Your task to perform on an android device: Open accessibility settings Image 0: 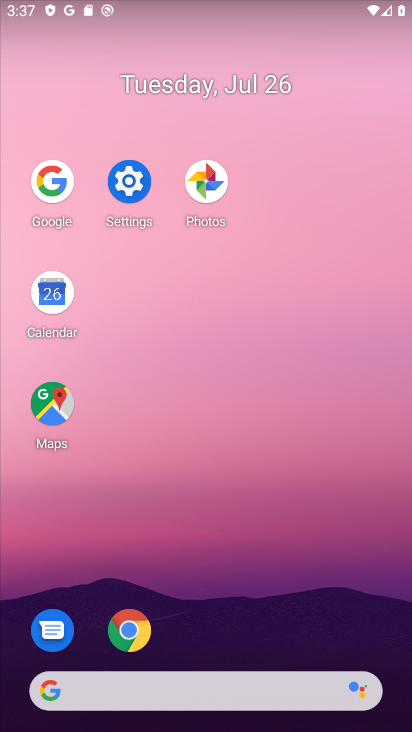
Step 0: click (134, 178)
Your task to perform on an android device: Open accessibility settings Image 1: 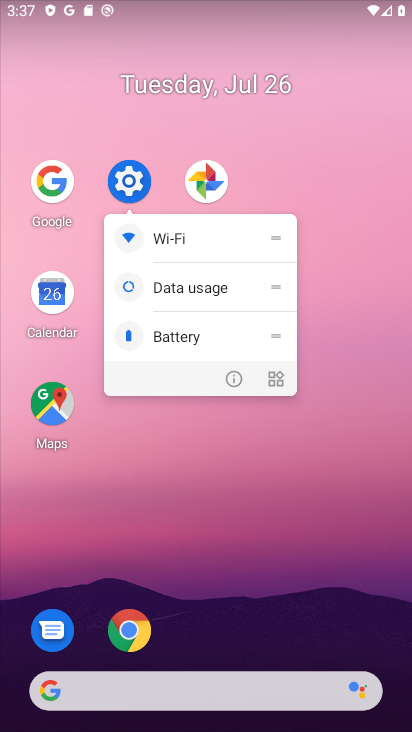
Step 1: click (134, 178)
Your task to perform on an android device: Open accessibility settings Image 2: 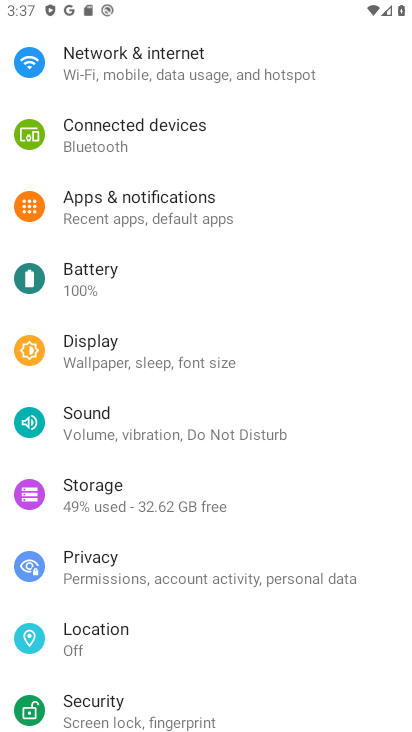
Step 2: drag from (262, 467) to (263, 239)
Your task to perform on an android device: Open accessibility settings Image 3: 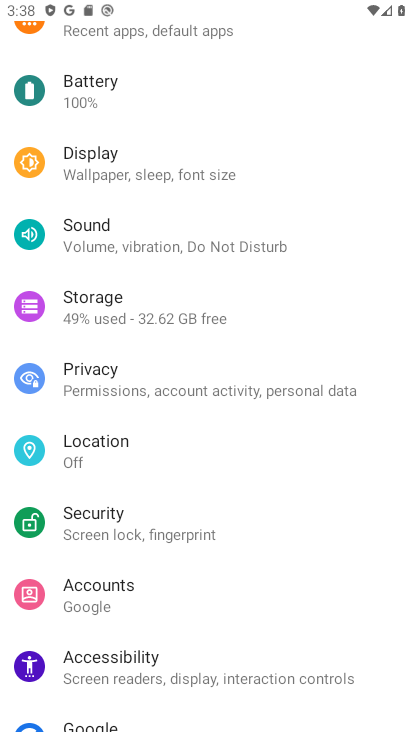
Step 3: click (148, 650)
Your task to perform on an android device: Open accessibility settings Image 4: 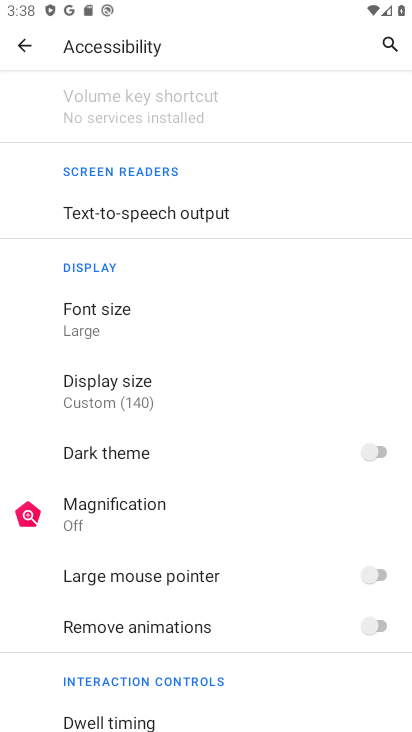
Step 4: task complete